Your task to perform on an android device: Go to battery settings Image 0: 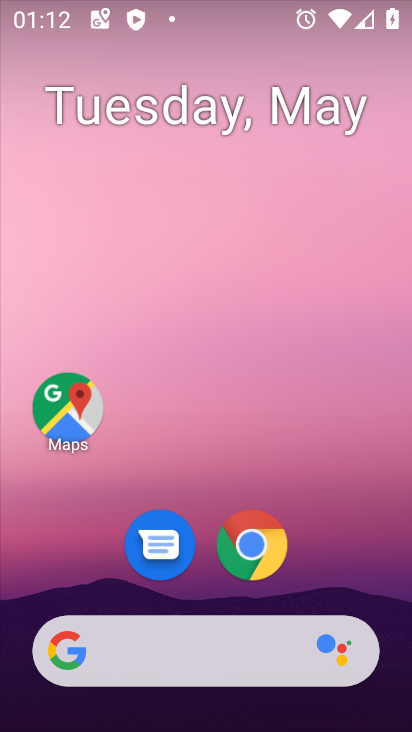
Step 0: drag from (311, 600) to (246, 8)
Your task to perform on an android device: Go to battery settings Image 1: 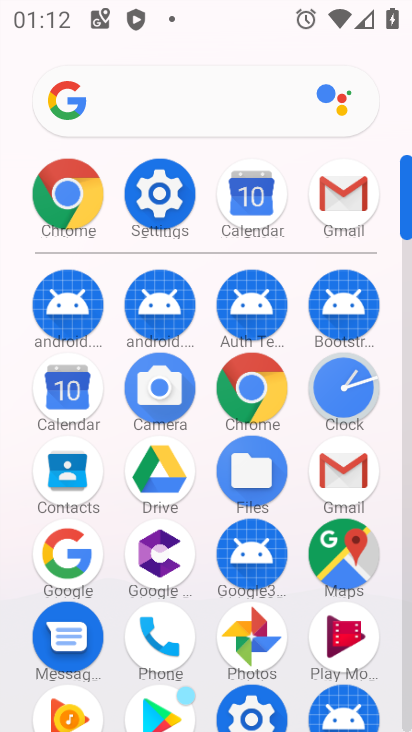
Step 1: click (152, 201)
Your task to perform on an android device: Go to battery settings Image 2: 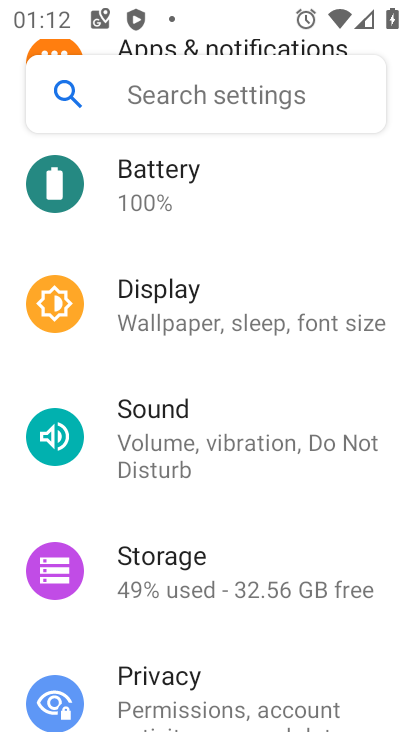
Step 2: drag from (204, 270) to (275, 587)
Your task to perform on an android device: Go to battery settings Image 3: 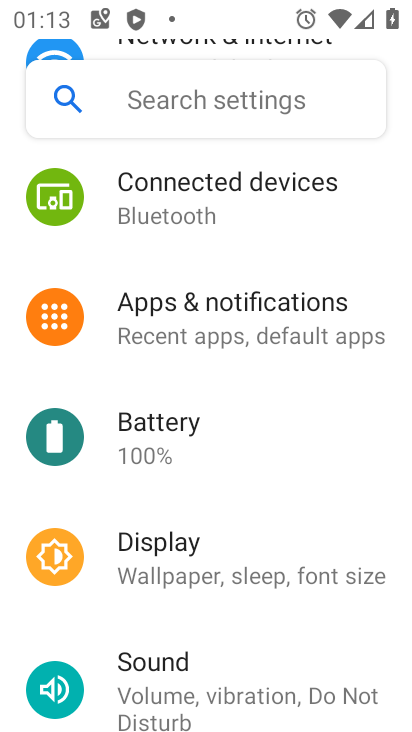
Step 3: click (205, 453)
Your task to perform on an android device: Go to battery settings Image 4: 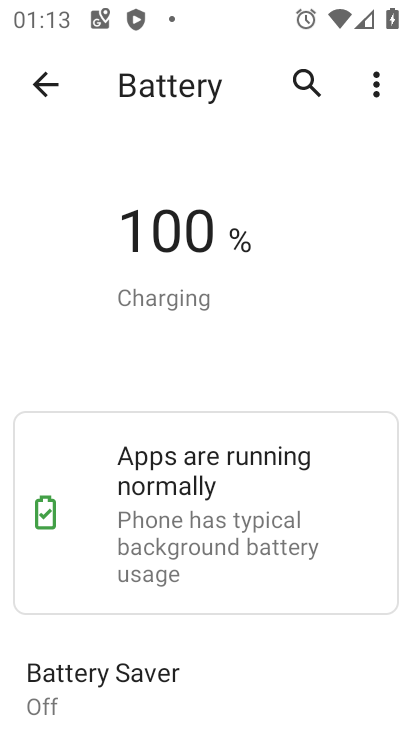
Step 4: task complete